Your task to perform on an android device: Open Google Chrome Image 0: 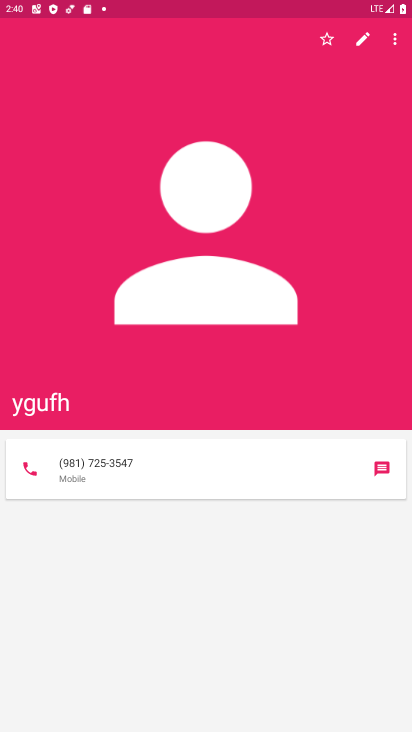
Step 0: press home button
Your task to perform on an android device: Open Google Chrome Image 1: 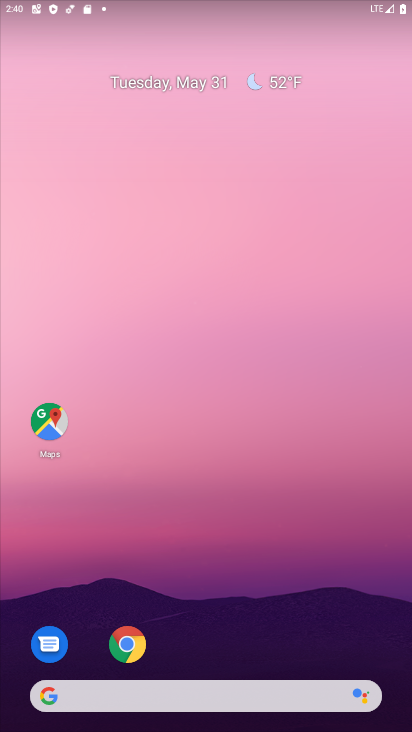
Step 1: click (123, 649)
Your task to perform on an android device: Open Google Chrome Image 2: 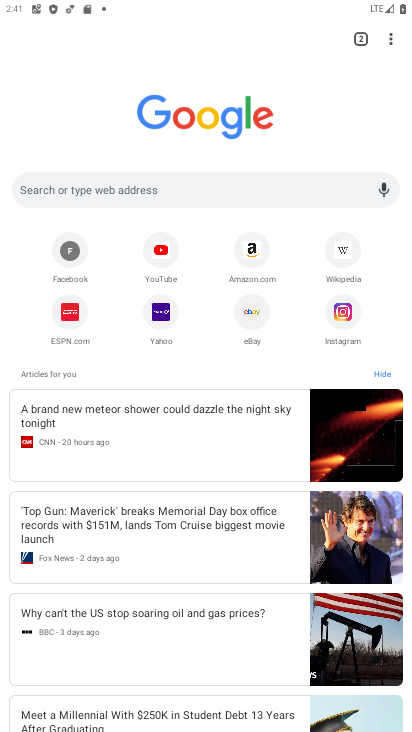
Step 2: task complete